Your task to perform on an android device: What's the weather? Image 0: 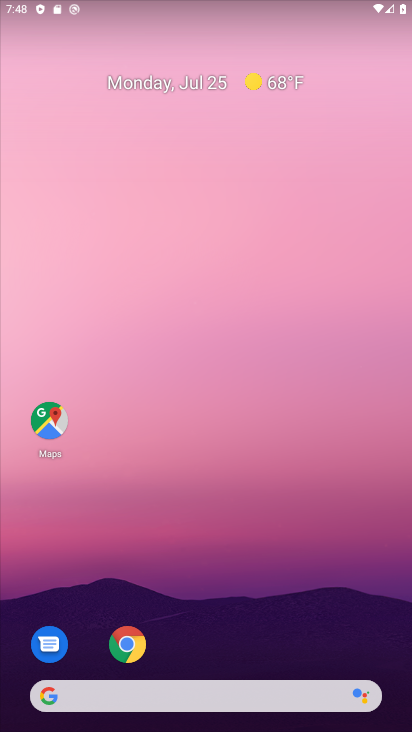
Step 0: drag from (225, 705) to (187, 12)
Your task to perform on an android device: What's the weather? Image 1: 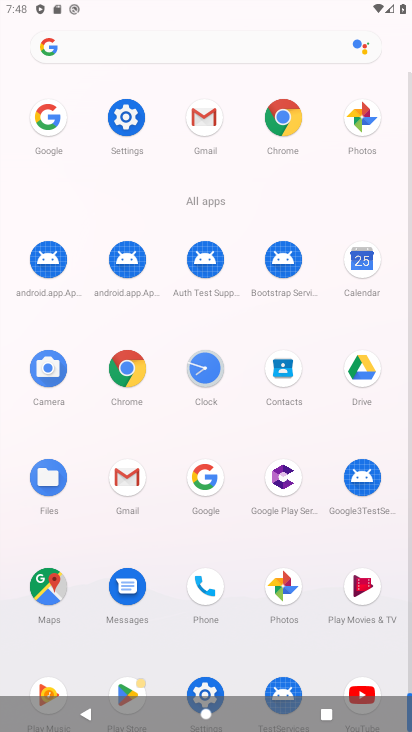
Step 1: press back button
Your task to perform on an android device: What's the weather? Image 2: 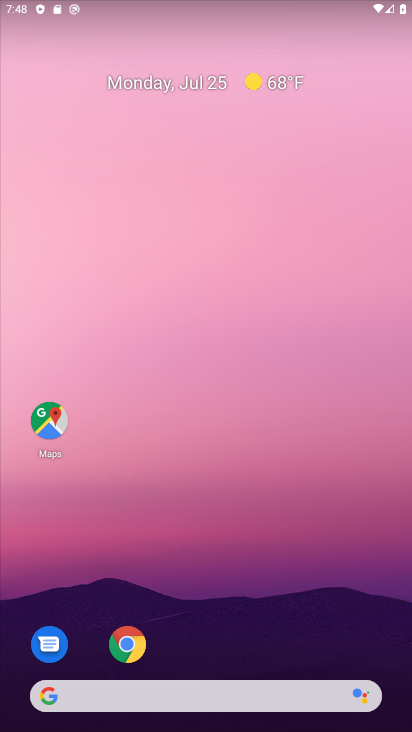
Step 2: click (261, 94)
Your task to perform on an android device: What's the weather? Image 3: 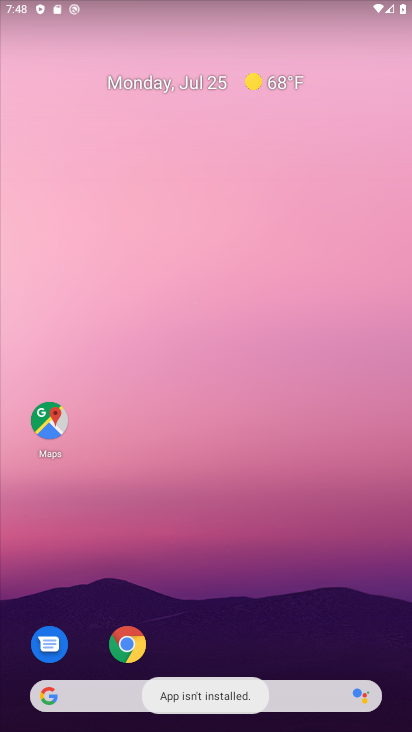
Step 3: click (261, 87)
Your task to perform on an android device: What's the weather? Image 4: 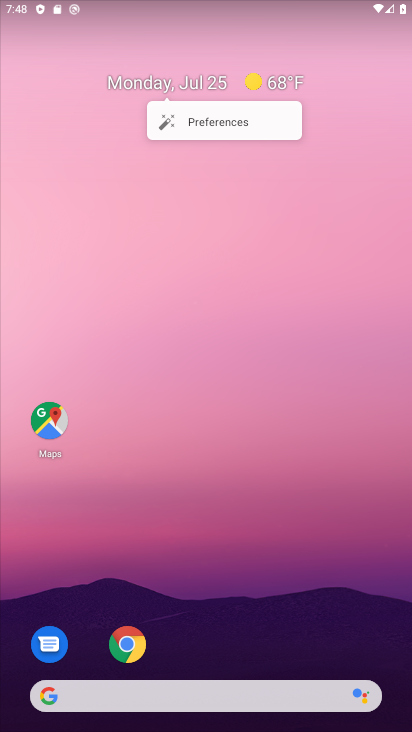
Step 4: click (252, 86)
Your task to perform on an android device: What's the weather? Image 5: 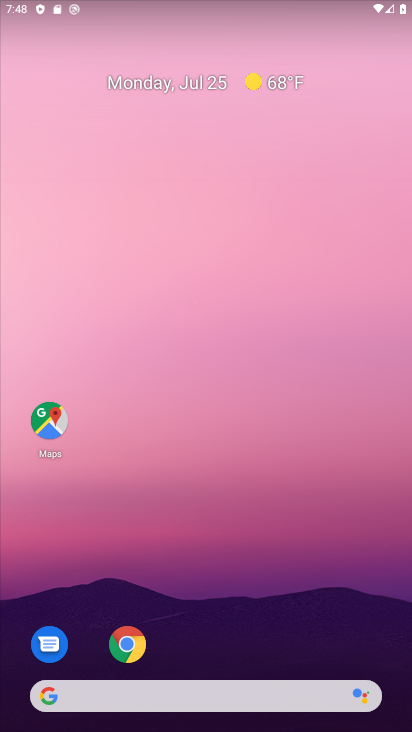
Step 5: click (251, 85)
Your task to perform on an android device: What's the weather? Image 6: 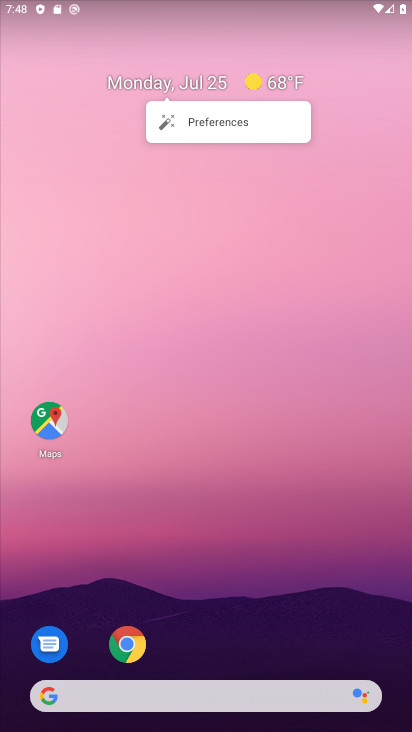
Step 6: drag from (255, 81) to (228, 430)
Your task to perform on an android device: What's the weather? Image 7: 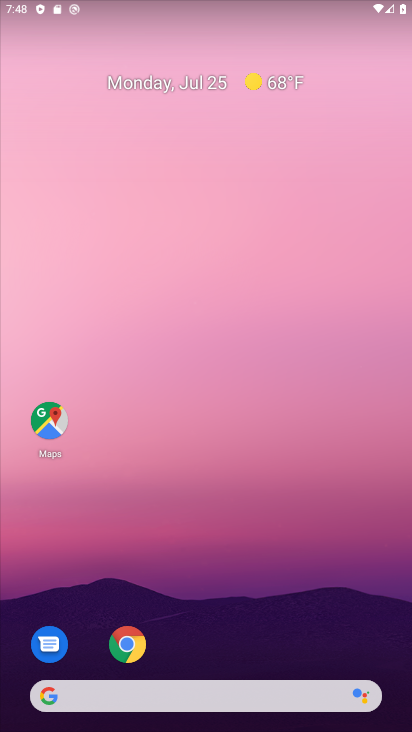
Step 7: click (280, 89)
Your task to perform on an android device: What's the weather? Image 8: 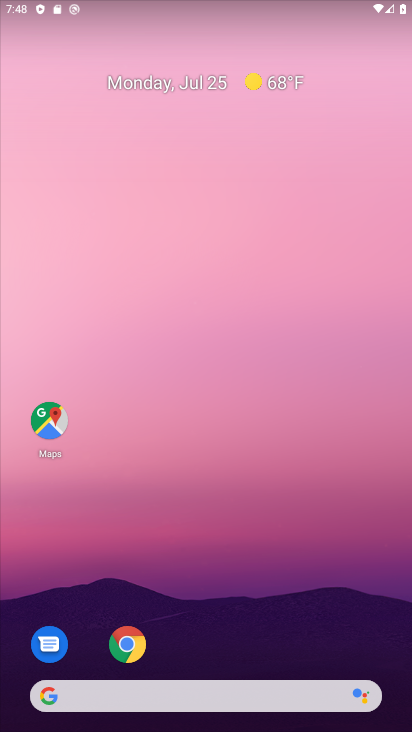
Step 8: click (282, 89)
Your task to perform on an android device: What's the weather? Image 9: 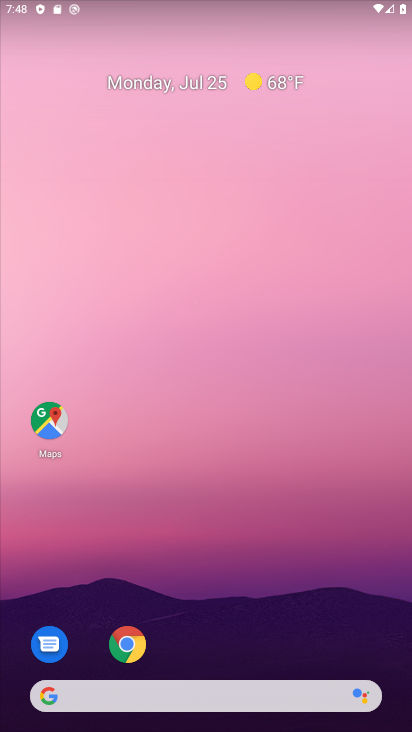
Step 9: click (283, 90)
Your task to perform on an android device: What's the weather? Image 10: 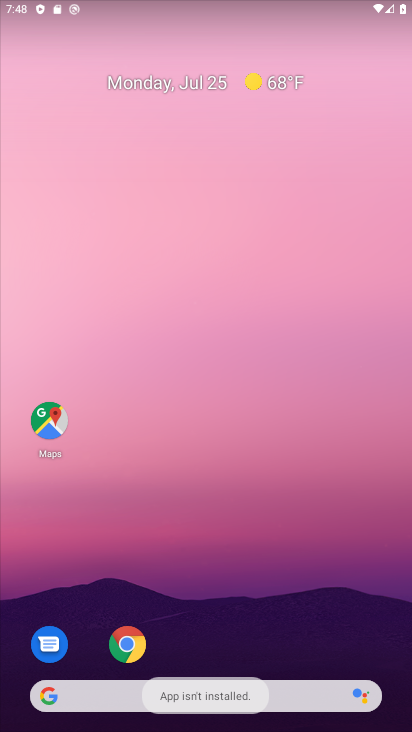
Step 10: click (267, 78)
Your task to perform on an android device: What's the weather? Image 11: 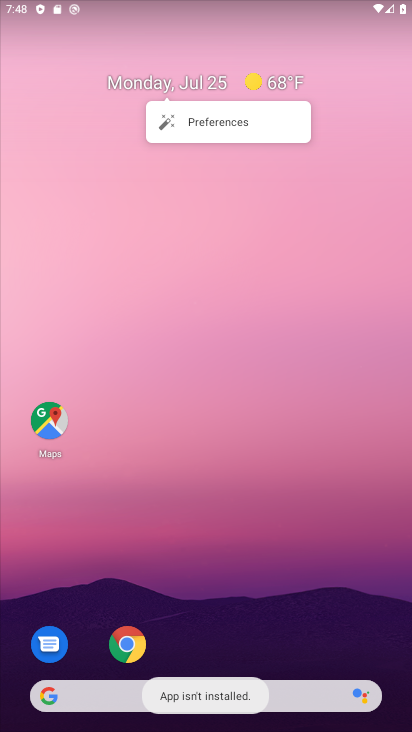
Step 11: click (248, 77)
Your task to perform on an android device: What's the weather? Image 12: 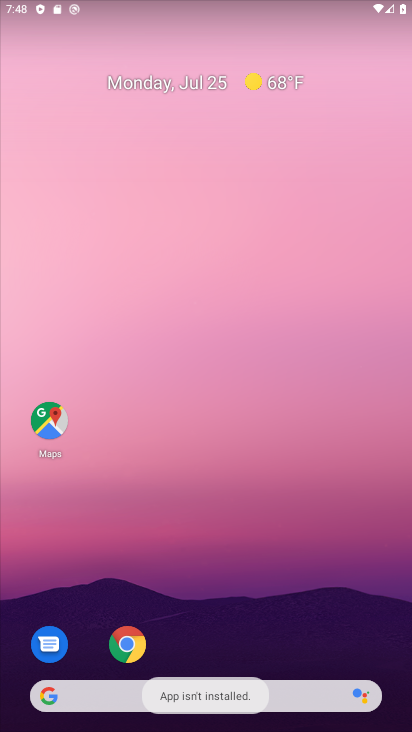
Step 12: click (250, 73)
Your task to perform on an android device: What's the weather? Image 13: 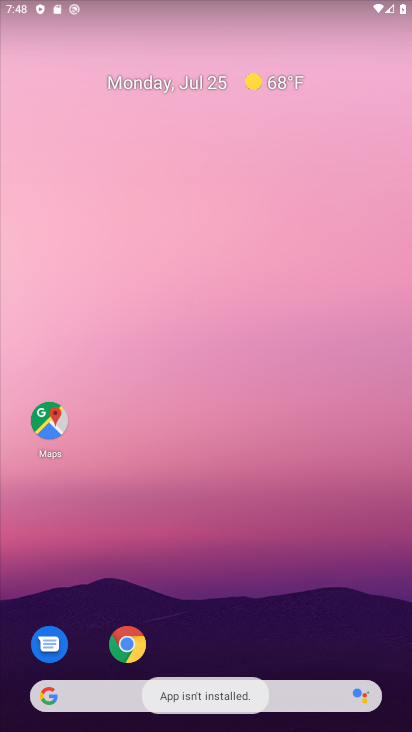
Step 13: click (251, 75)
Your task to perform on an android device: What's the weather? Image 14: 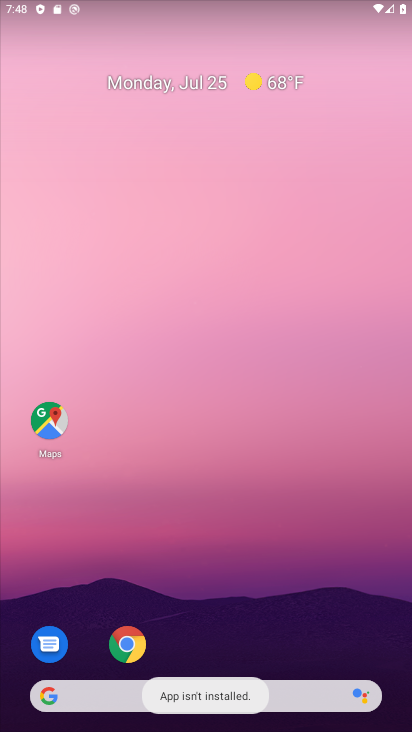
Step 14: click (252, 78)
Your task to perform on an android device: What's the weather? Image 15: 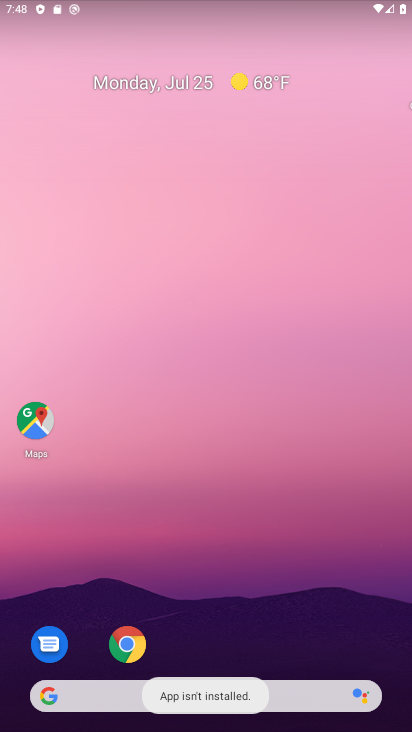
Step 15: click (257, 70)
Your task to perform on an android device: What's the weather? Image 16: 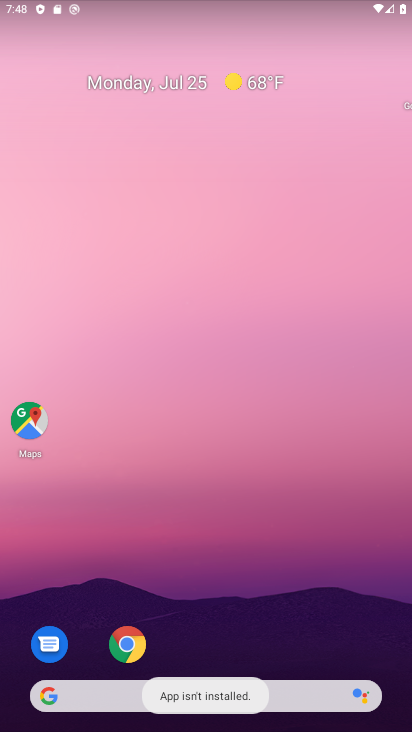
Step 16: drag from (241, 82) to (355, 140)
Your task to perform on an android device: What's the weather? Image 17: 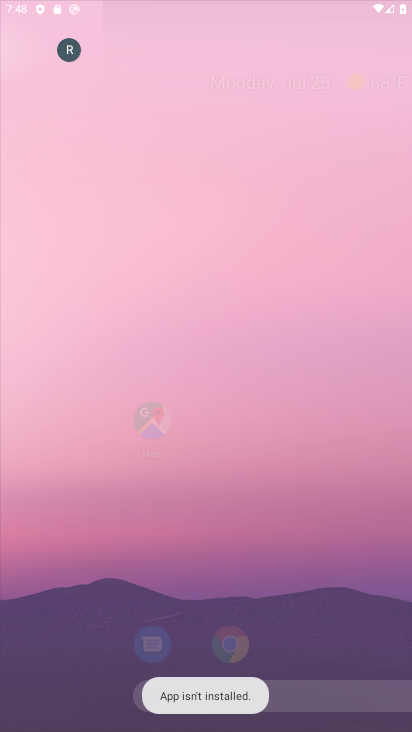
Step 17: drag from (247, 67) to (310, 384)
Your task to perform on an android device: What's the weather? Image 18: 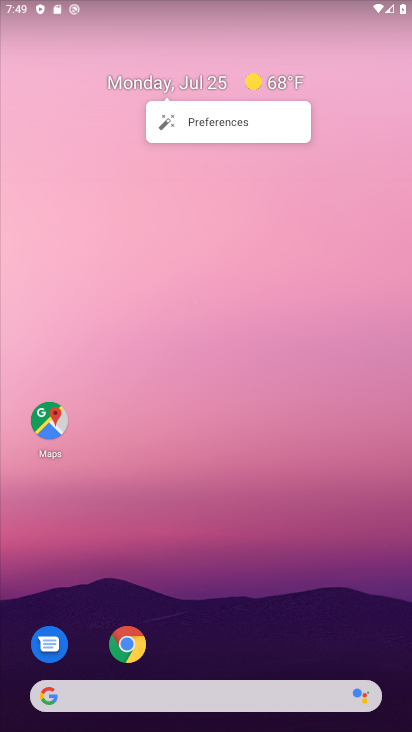
Step 18: drag from (236, 66) to (236, 256)
Your task to perform on an android device: What's the weather? Image 19: 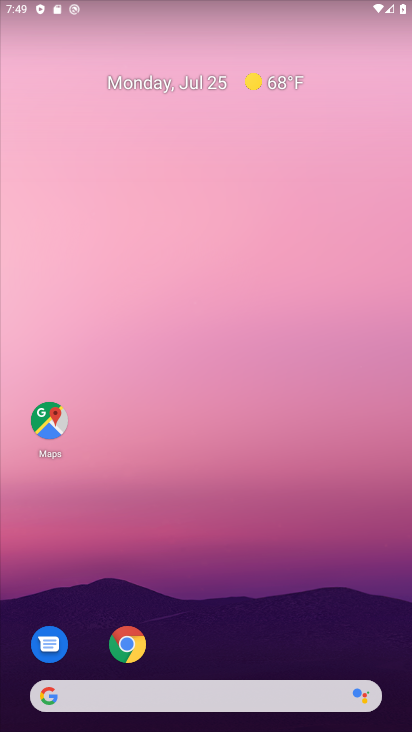
Step 19: click (256, 84)
Your task to perform on an android device: What's the weather? Image 20: 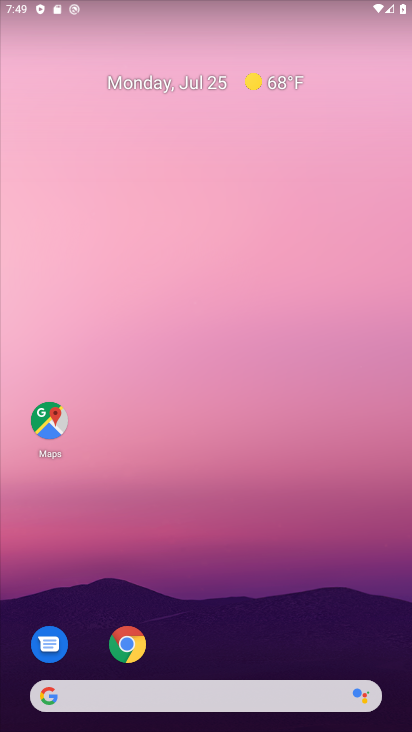
Step 20: click (259, 83)
Your task to perform on an android device: What's the weather? Image 21: 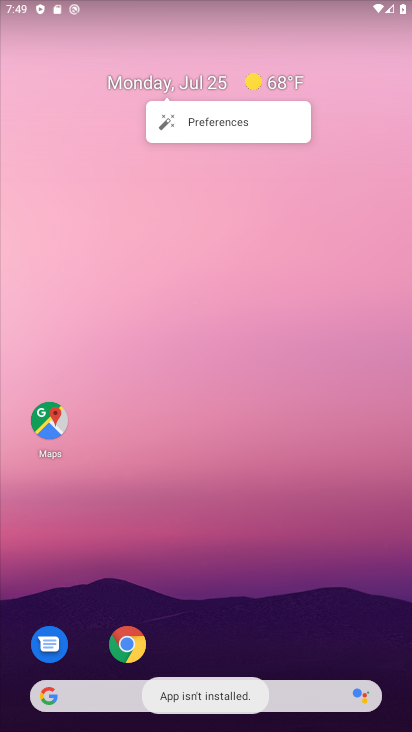
Step 21: drag from (258, 80) to (288, 567)
Your task to perform on an android device: What's the weather? Image 22: 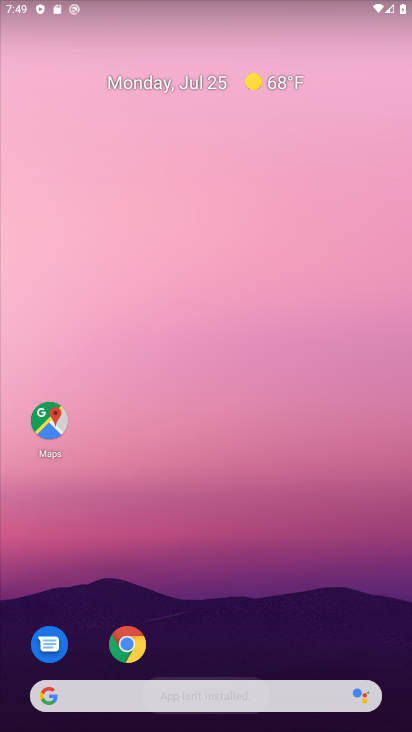
Step 22: drag from (249, 100) to (214, 373)
Your task to perform on an android device: What's the weather? Image 23: 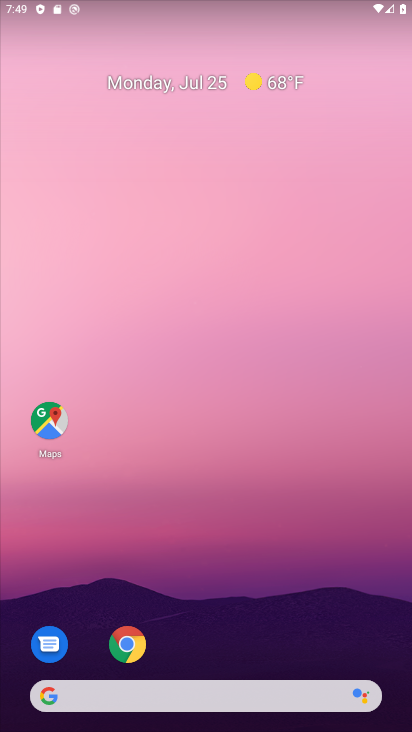
Step 23: drag from (85, 75) to (355, 164)
Your task to perform on an android device: What's the weather? Image 24: 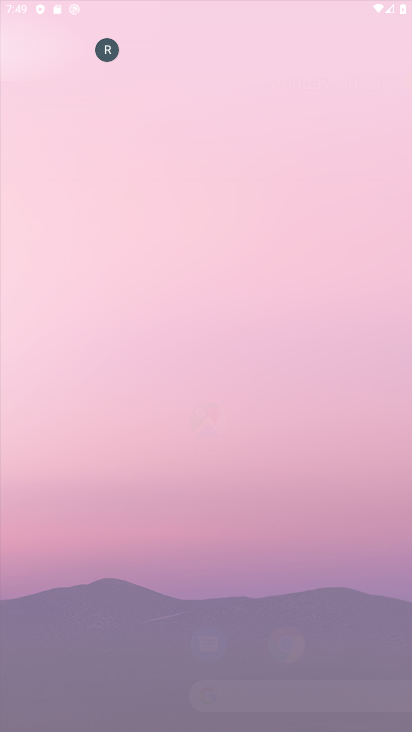
Step 24: drag from (201, 73) to (404, 116)
Your task to perform on an android device: What's the weather? Image 25: 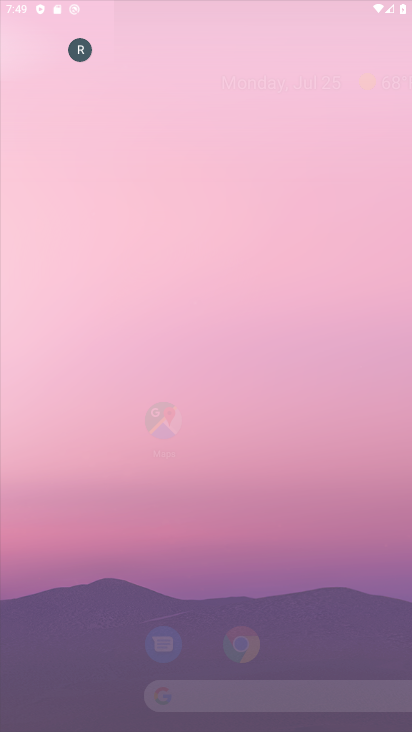
Step 25: drag from (71, 57) to (395, 118)
Your task to perform on an android device: What's the weather? Image 26: 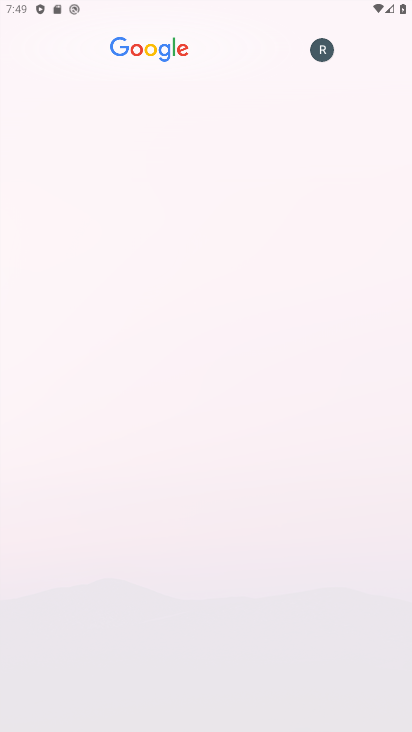
Step 26: drag from (19, 130) to (408, 137)
Your task to perform on an android device: What's the weather? Image 27: 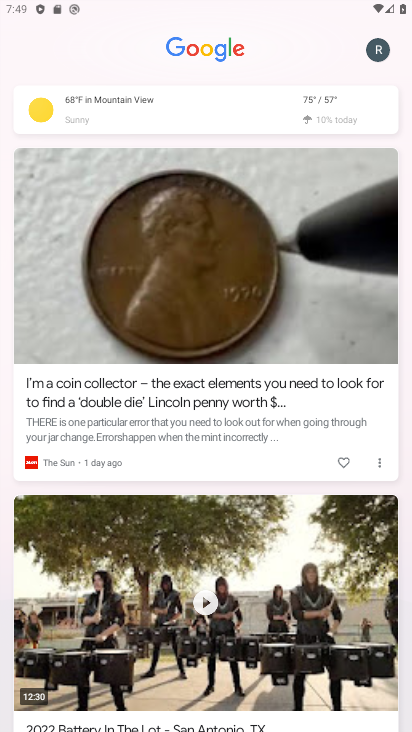
Step 27: click (113, 110)
Your task to perform on an android device: What's the weather? Image 28: 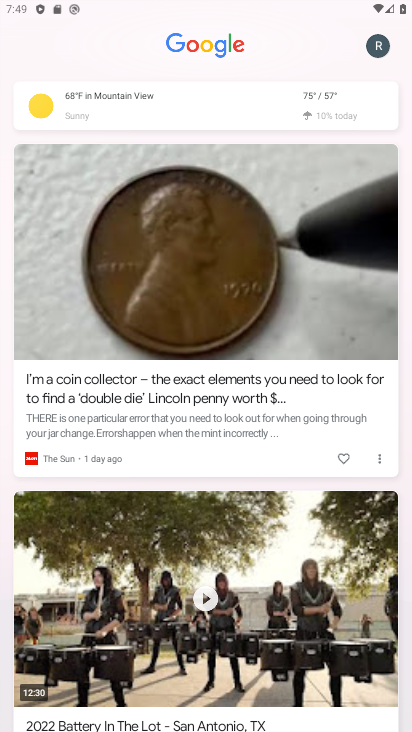
Step 28: click (118, 101)
Your task to perform on an android device: What's the weather? Image 29: 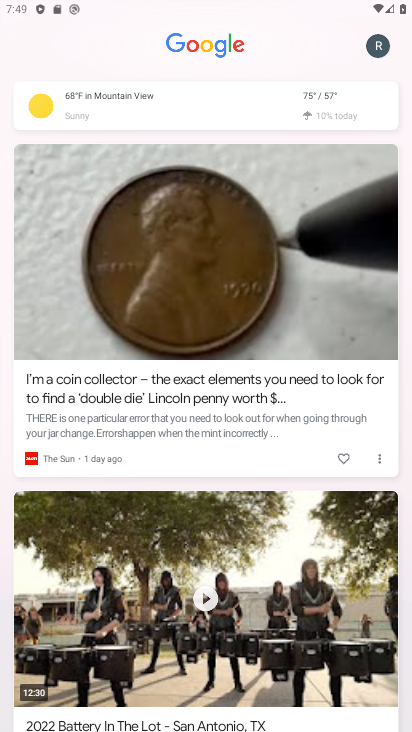
Step 29: task complete